Your task to perform on an android device: Open Amazon Image 0: 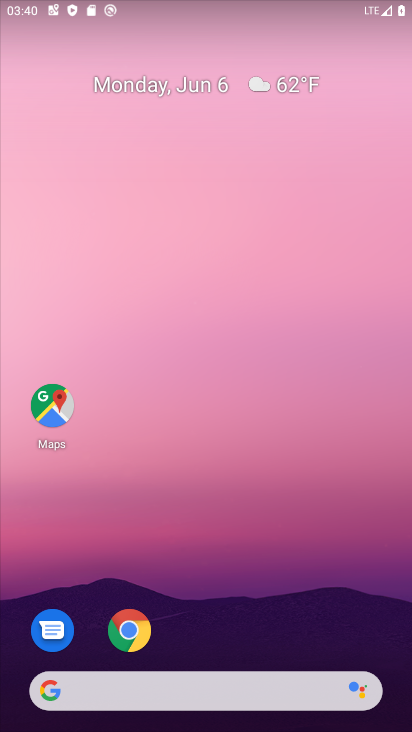
Step 0: click (119, 633)
Your task to perform on an android device: Open Amazon Image 1: 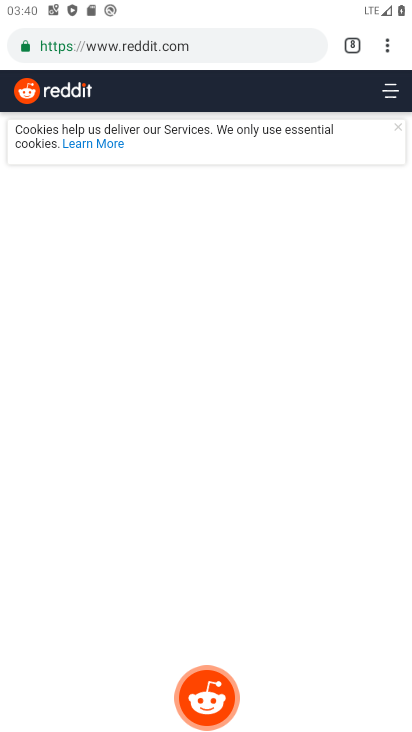
Step 1: drag from (387, 46) to (243, 548)
Your task to perform on an android device: Open Amazon Image 2: 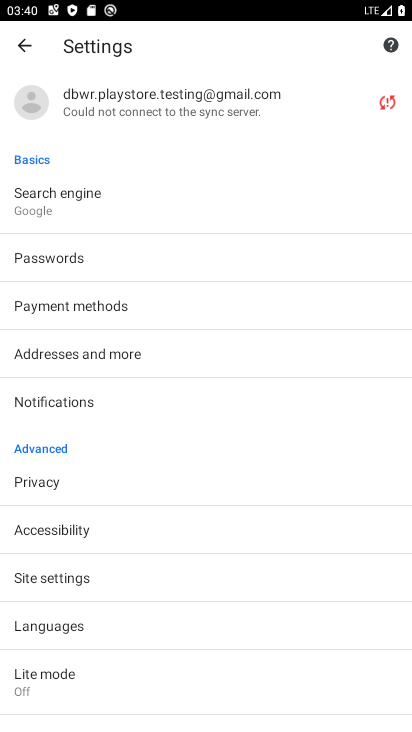
Step 2: click (28, 41)
Your task to perform on an android device: Open Amazon Image 3: 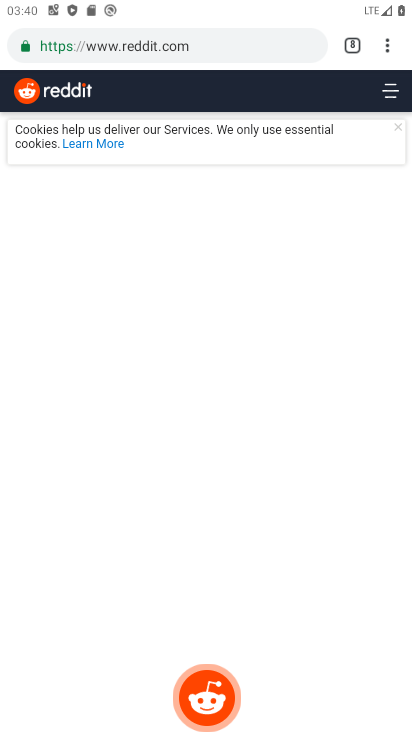
Step 3: drag from (389, 45) to (249, 112)
Your task to perform on an android device: Open Amazon Image 4: 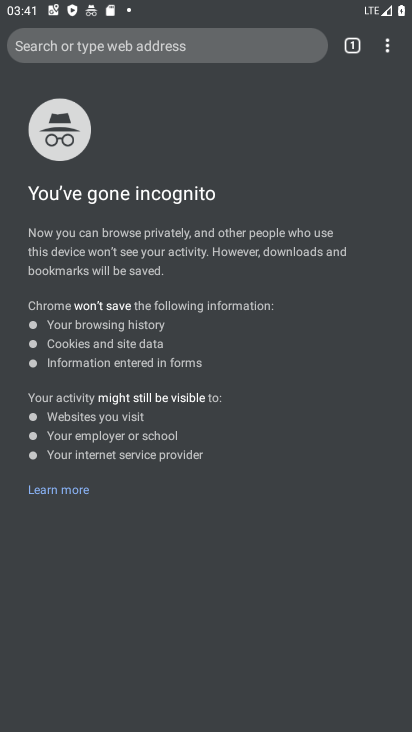
Step 4: press back button
Your task to perform on an android device: Open Amazon Image 5: 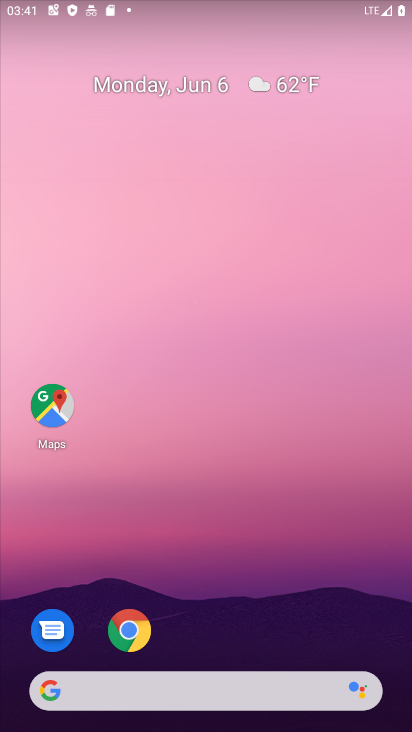
Step 5: click (142, 630)
Your task to perform on an android device: Open Amazon Image 6: 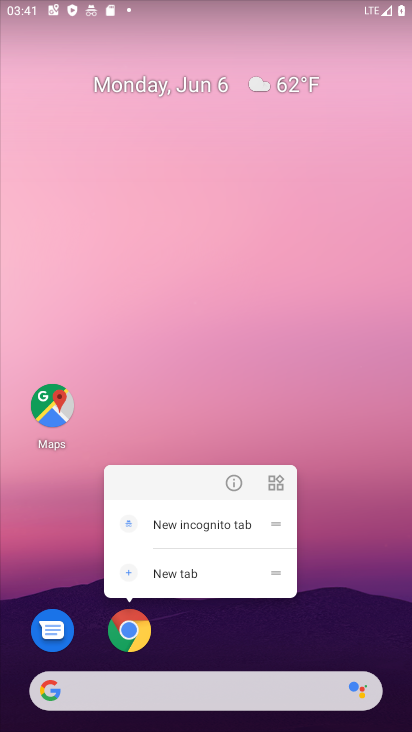
Step 6: click (152, 643)
Your task to perform on an android device: Open Amazon Image 7: 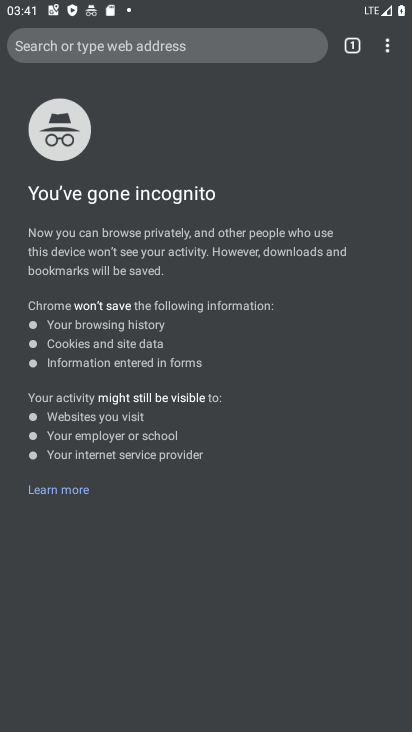
Step 7: drag from (388, 46) to (208, 89)
Your task to perform on an android device: Open Amazon Image 8: 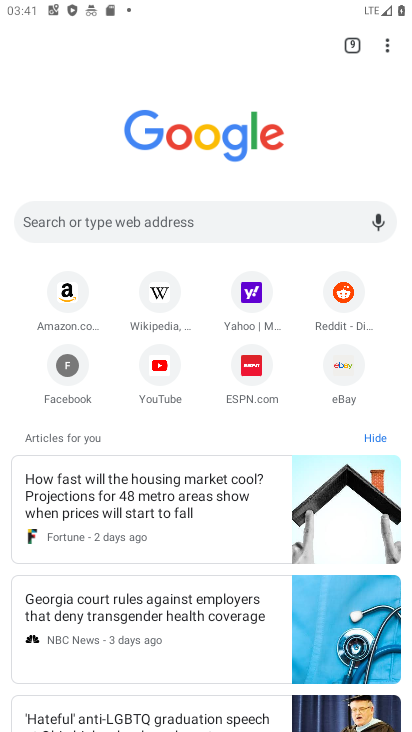
Step 8: click (59, 298)
Your task to perform on an android device: Open Amazon Image 9: 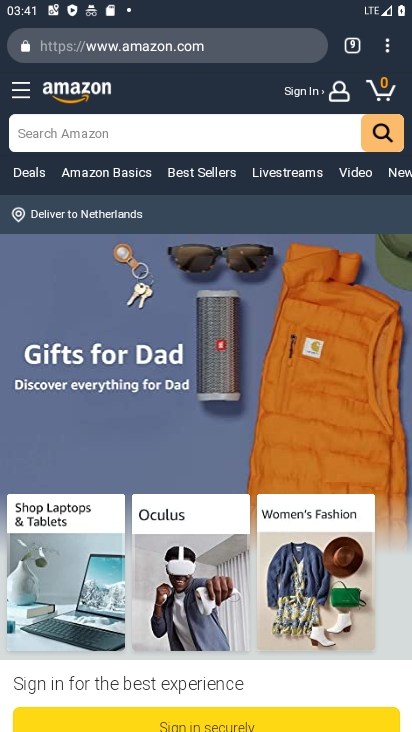
Step 9: task complete